Your task to perform on an android device: Go to ESPN.com Image 0: 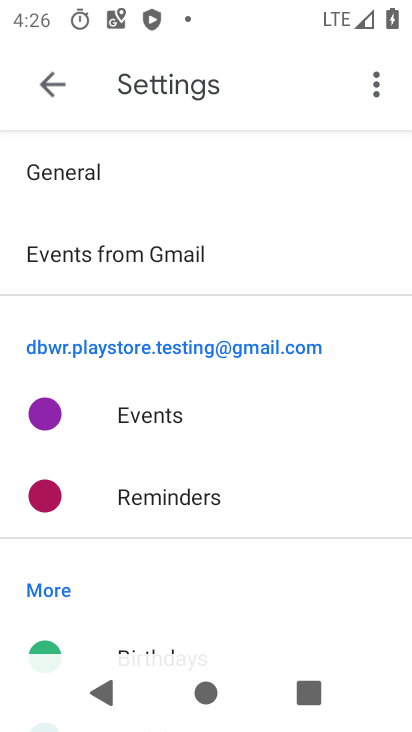
Step 0: press home button
Your task to perform on an android device: Go to ESPN.com Image 1: 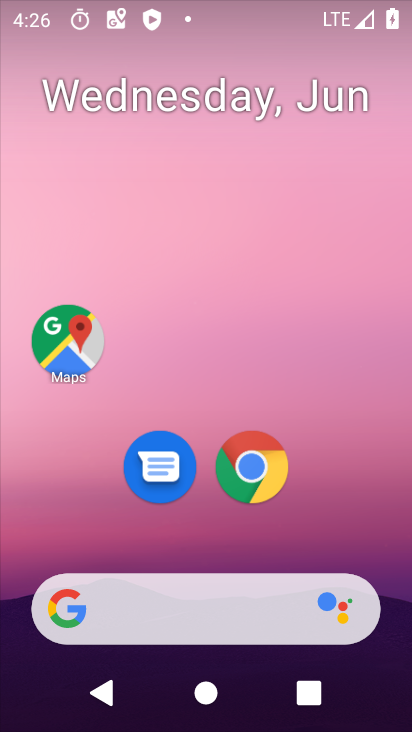
Step 1: drag from (330, 472) to (197, 42)
Your task to perform on an android device: Go to ESPN.com Image 2: 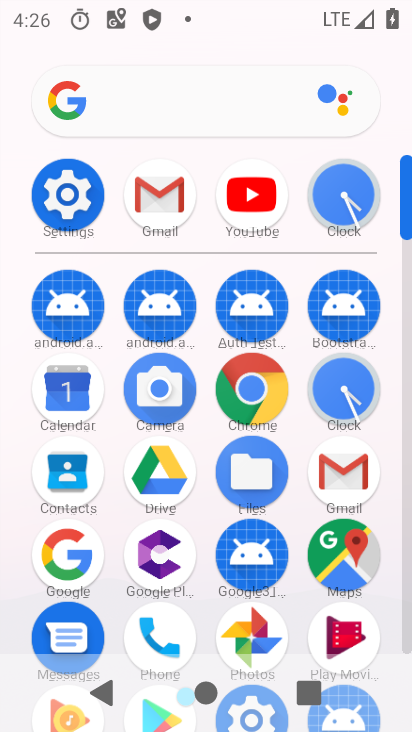
Step 2: click (256, 388)
Your task to perform on an android device: Go to ESPN.com Image 3: 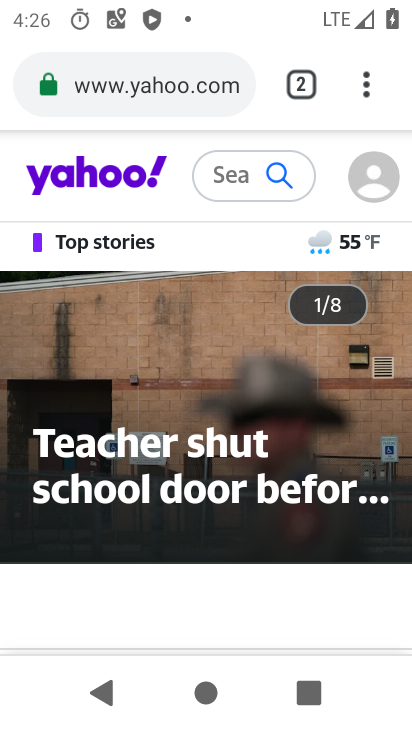
Step 3: click (314, 94)
Your task to perform on an android device: Go to ESPN.com Image 4: 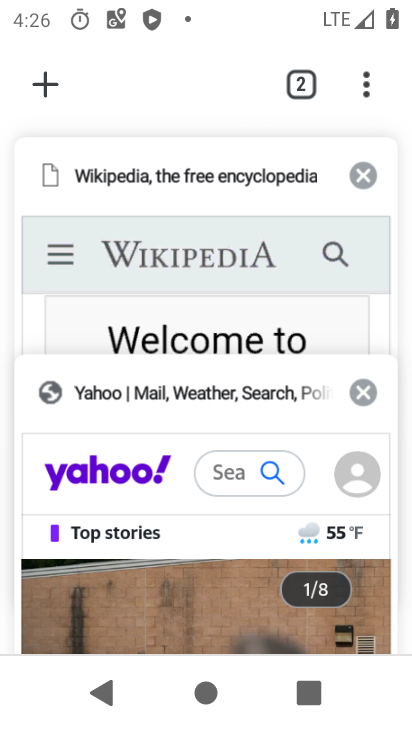
Step 4: click (33, 81)
Your task to perform on an android device: Go to ESPN.com Image 5: 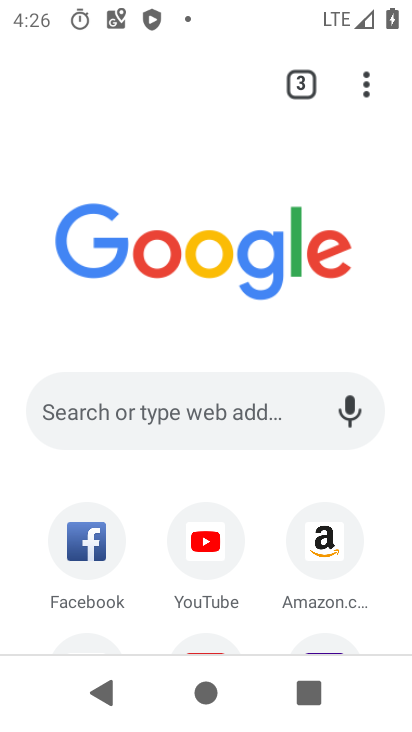
Step 5: drag from (202, 518) to (213, 89)
Your task to perform on an android device: Go to ESPN.com Image 6: 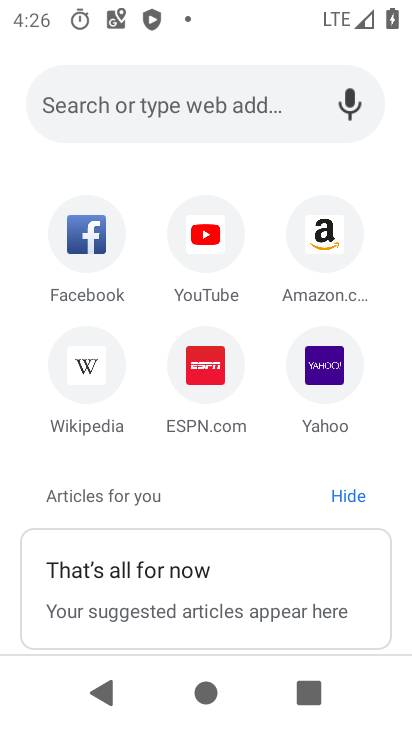
Step 6: click (216, 376)
Your task to perform on an android device: Go to ESPN.com Image 7: 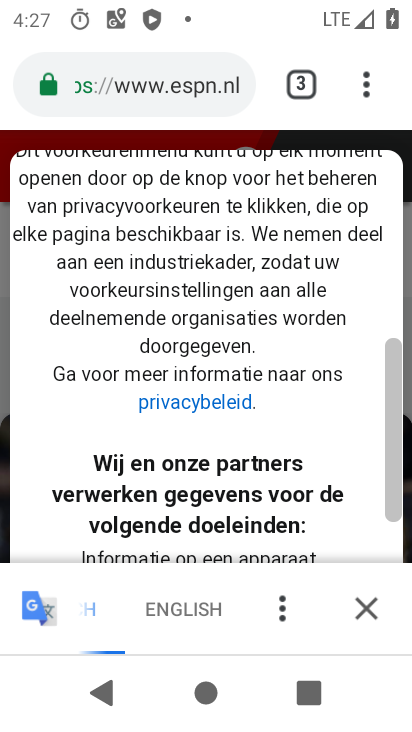
Step 7: task complete